Your task to perform on an android device: turn smart compose on in the gmail app Image 0: 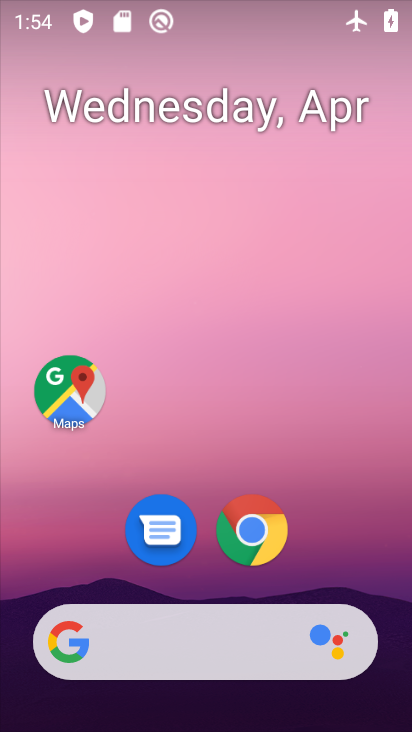
Step 0: drag from (323, 535) to (326, 184)
Your task to perform on an android device: turn smart compose on in the gmail app Image 1: 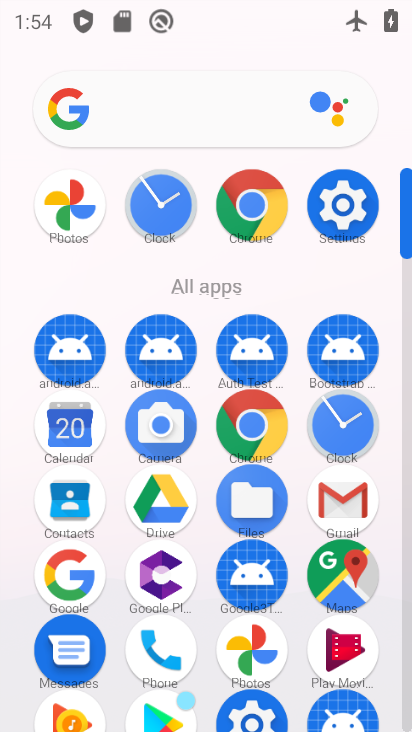
Step 1: click (352, 509)
Your task to perform on an android device: turn smart compose on in the gmail app Image 2: 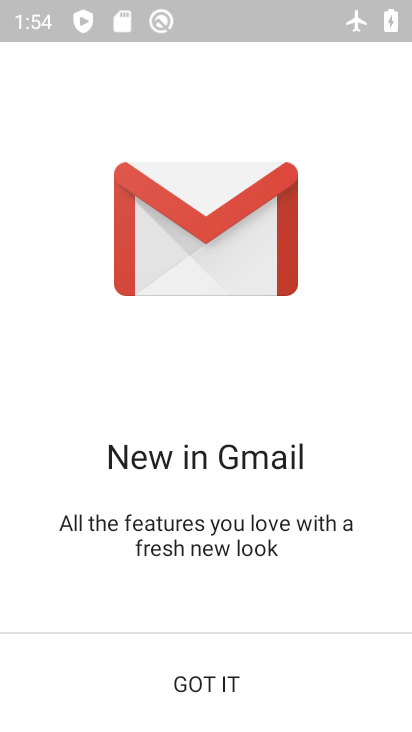
Step 2: click (235, 656)
Your task to perform on an android device: turn smart compose on in the gmail app Image 3: 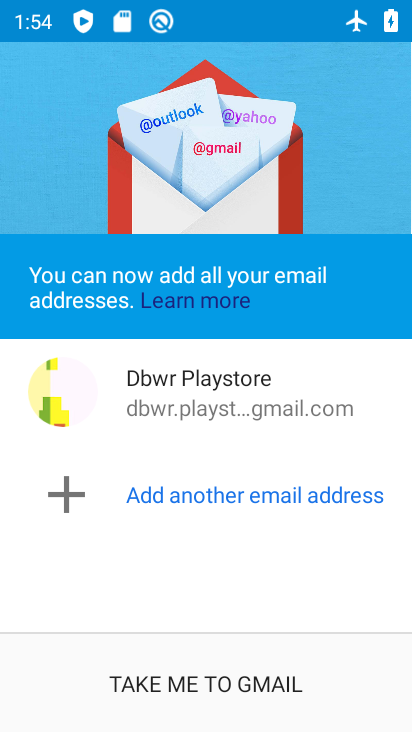
Step 3: click (253, 670)
Your task to perform on an android device: turn smart compose on in the gmail app Image 4: 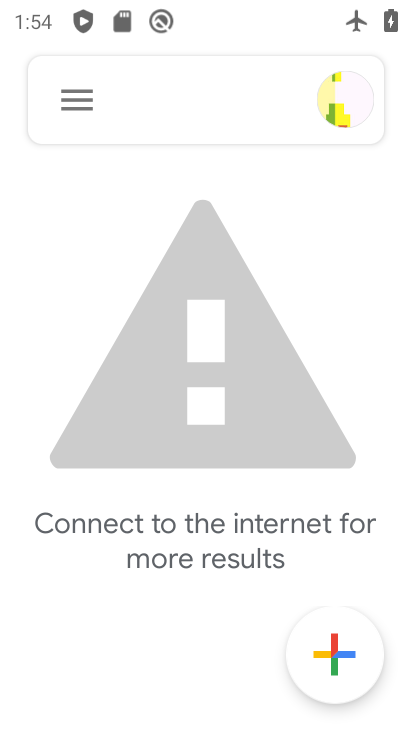
Step 4: click (70, 102)
Your task to perform on an android device: turn smart compose on in the gmail app Image 5: 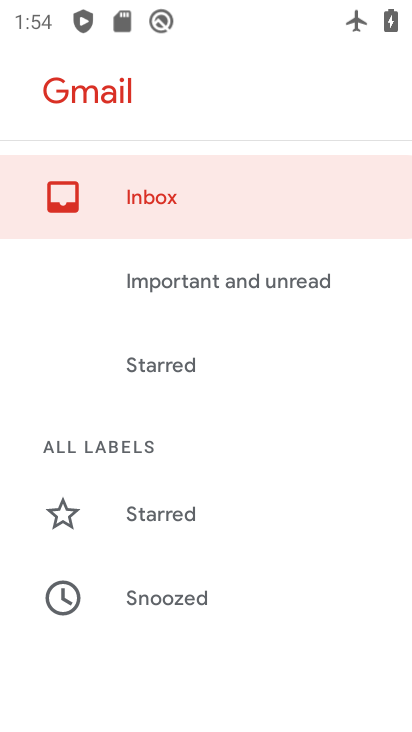
Step 5: drag from (200, 587) to (342, 177)
Your task to perform on an android device: turn smart compose on in the gmail app Image 6: 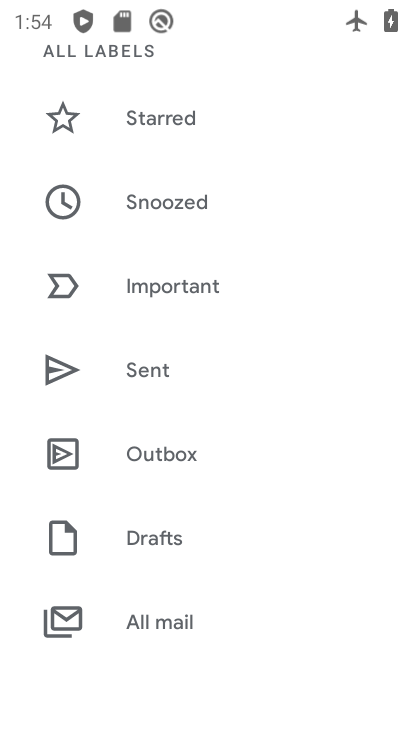
Step 6: drag from (212, 566) to (310, 222)
Your task to perform on an android device: turn smart compose on in the gmail app Image 7: 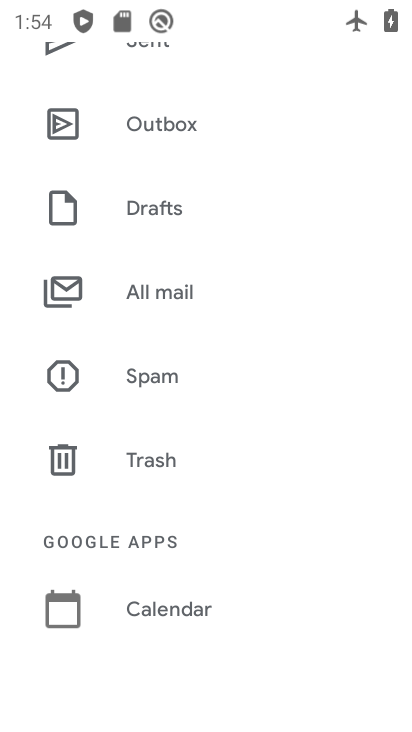
Step 7: drag from (214, 527) to (307, 217)
Your task to perform on an android device: turn smart compose on in the gmail app Image 8: 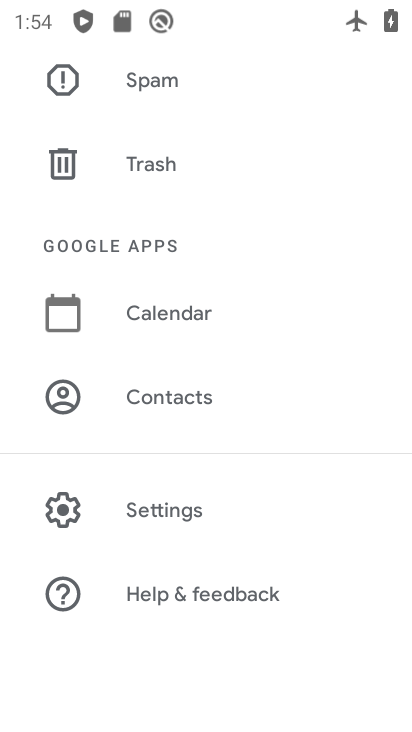
Step 8: click (166, 504)
Your task to perform on an android device: turn smart compose on in the gmail app Image 9: 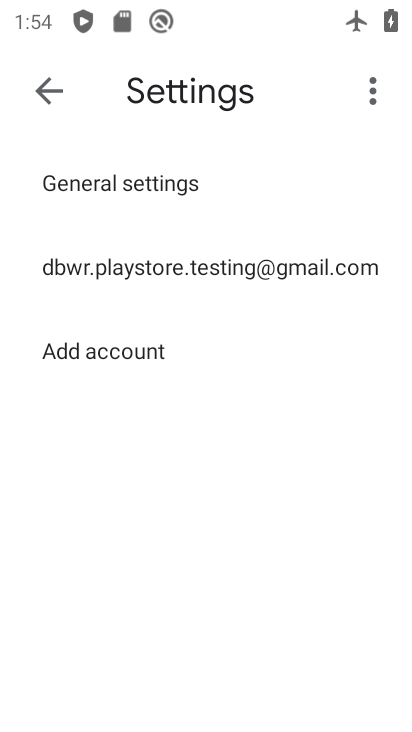
Step 9: click (221, 268)
Your task to perform on an android device: turn smart compose on in the gmail app Image 10: 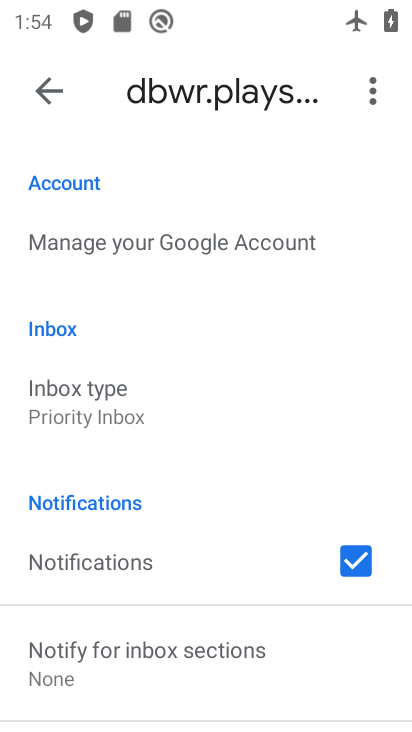
Step 10: task complete